Your task to perform on an android device: Open Google Maps and go to "Timeline" Image 0: 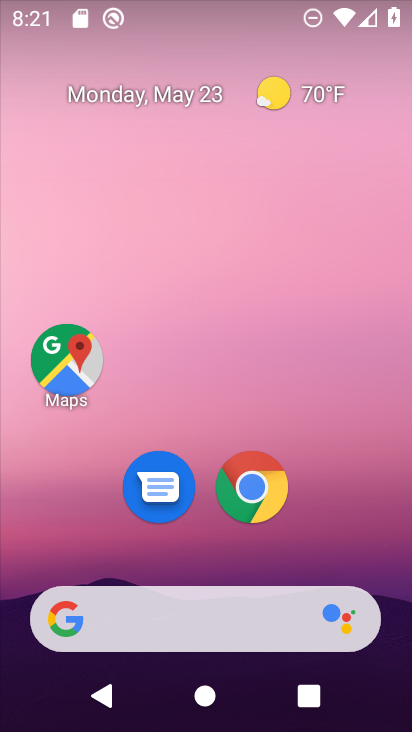
Step 0: click (174, 576)
Your task to perform on an android device: Open Google Maps and go to "Timeline" Image 1: 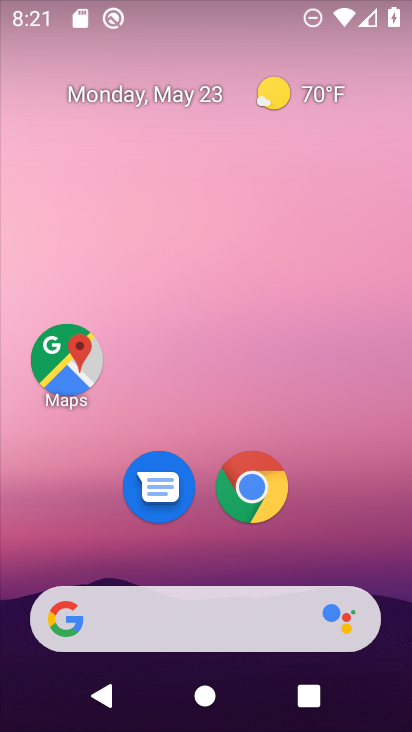
Step 1: click (50, 350)
Your task to perform on an android device: Open Google Maps and go to "Timeline" Image 2: 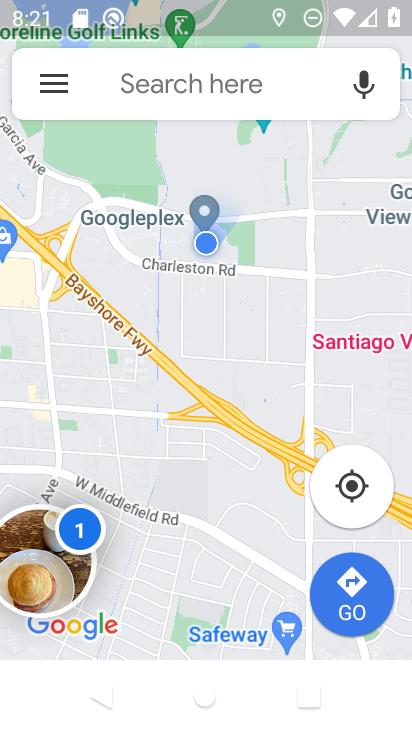
Step 2: click (51, 88)
Your task to perform on an android device: Open Google Maps and go to "Timeline" Image 3: 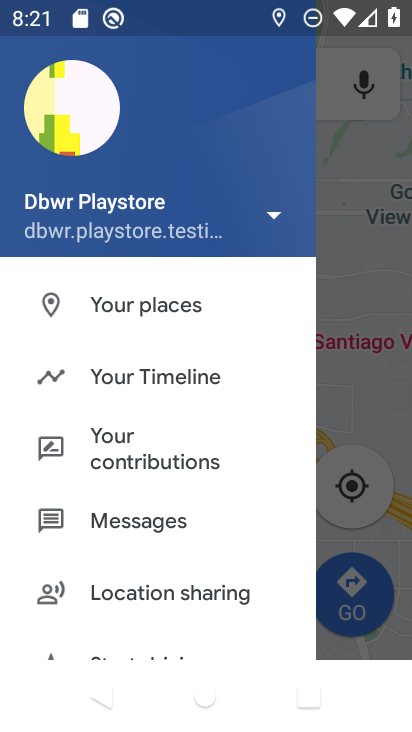
Step 3: click (134, 380)
Your task to perform on an android device: Open Google Maps and go to "Timeline" Image 4: 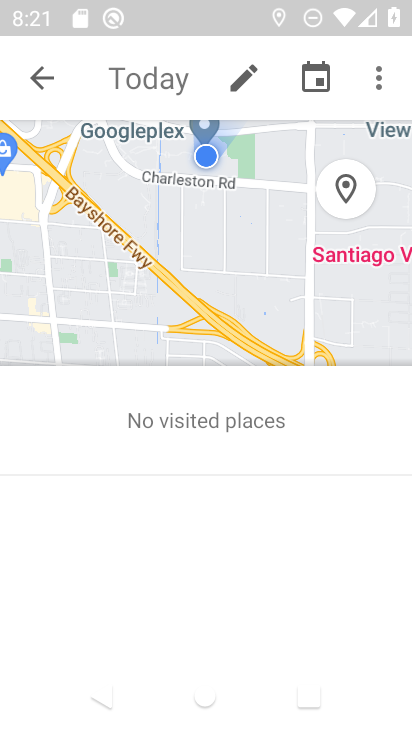
Step 4: task complete